Your task to perform on an android device: toggle notification dots Image 0: 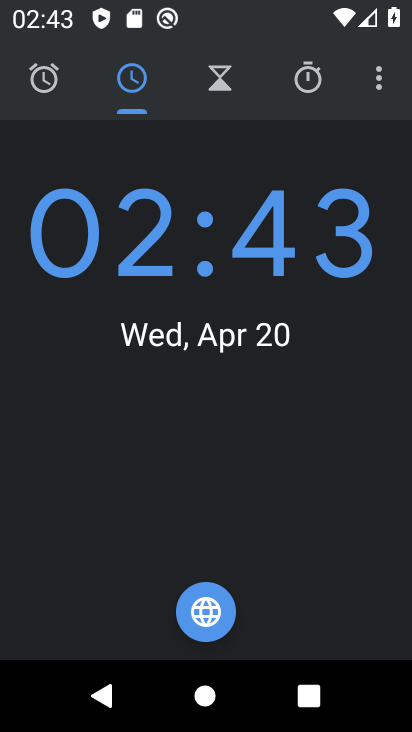
Step 0: press home button
Your task to perform on an android device: toggle notification dots Image 1: 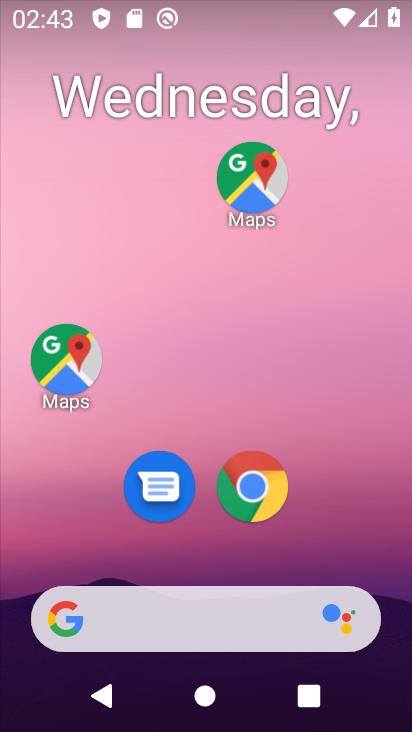
Step 1: drag from (205, 562) to (300, 1)
Your task to perform on an android device: toggle notification dots Image 2: 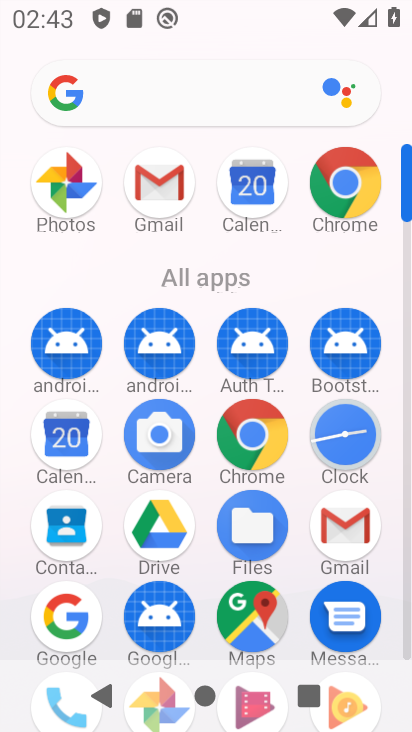
Step 2: drag from (206, 572) to (175, 169)
Your task to perform on an android device: toggle notification dots Image 3: 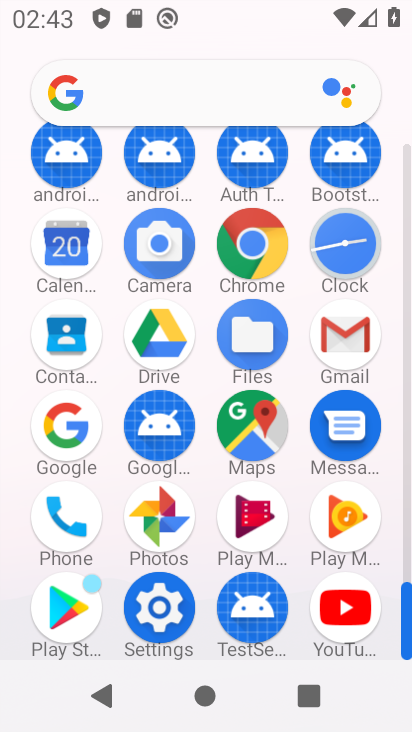
Step 3: click (166, 630)
Your task to perform on an android device: toggle notification dots Image 4: 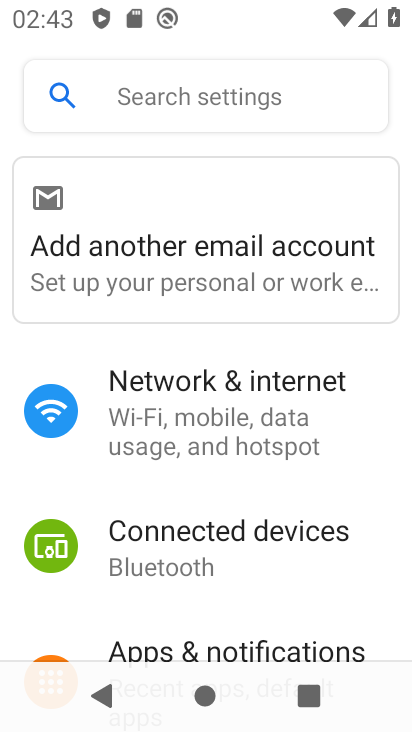
Step 4: click (208, 640)
Your task to perform on an android device: toggle notification dots Image 5: 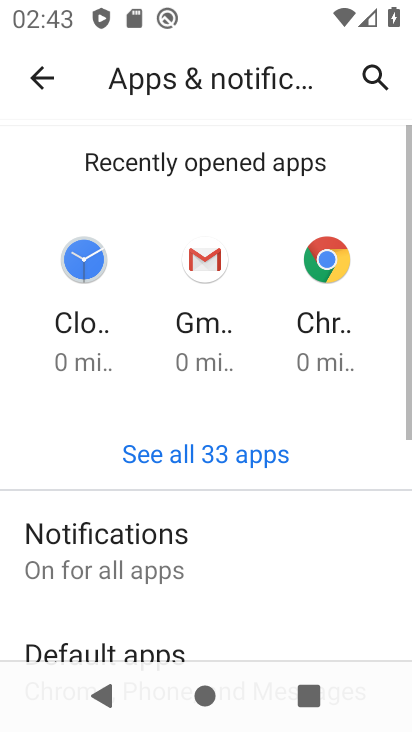
Step 5: click (201, 529)
Your task to perform on an android device: toggle notification dots Image 6: 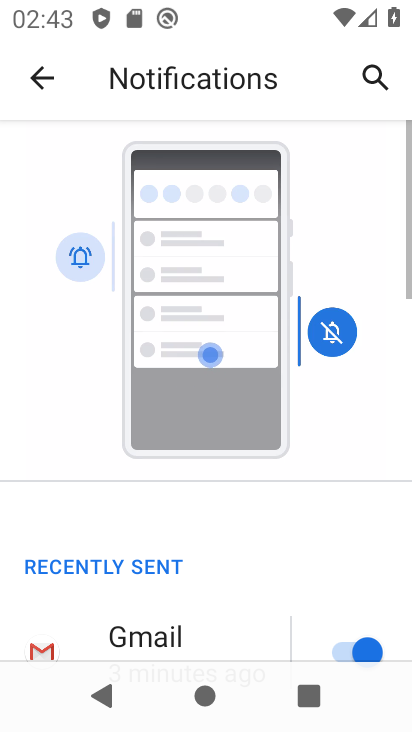
Step 6: drag from (204, 530) to (194, 51)
Your task to perform on an android device: toggle notification dots Image 7: 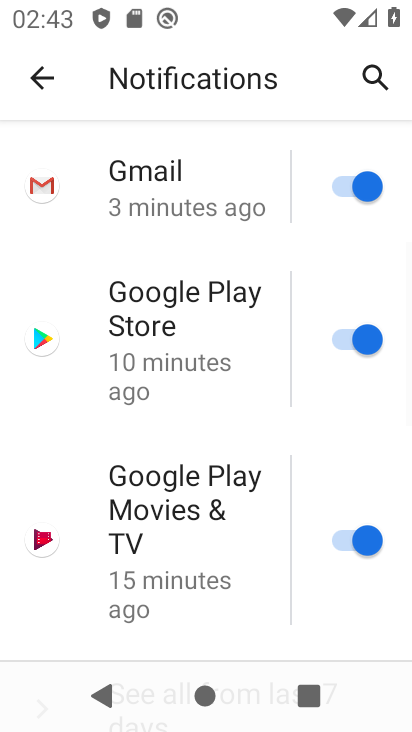
Step 7: drag from (183, 592) to (157, 77)
Your task to perform on an android device: toggle notification dots Image 8: 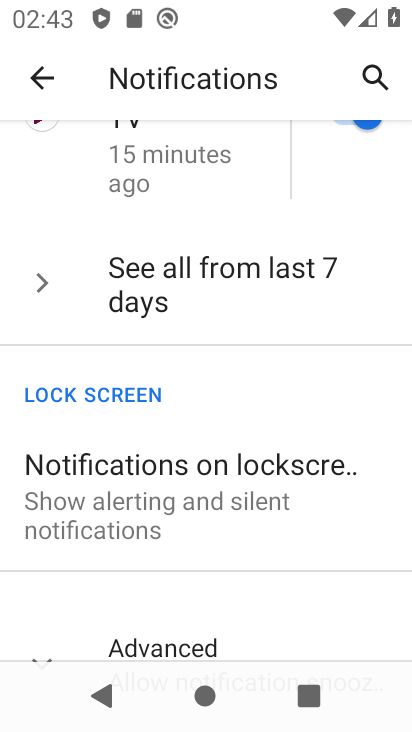
Step 8: click (184, 655)
Your task to perform on an android device: toggle notification dots Image 9: 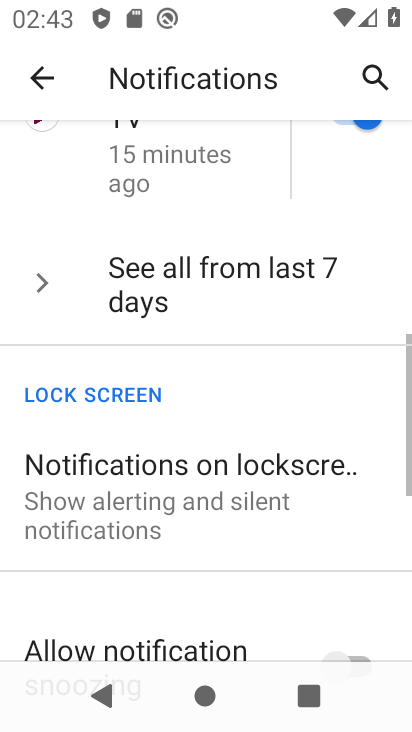
Step 9: drag from (223, 601) to (209, 10)
Your task to perform on an android device: toggle notification dots Image 10: 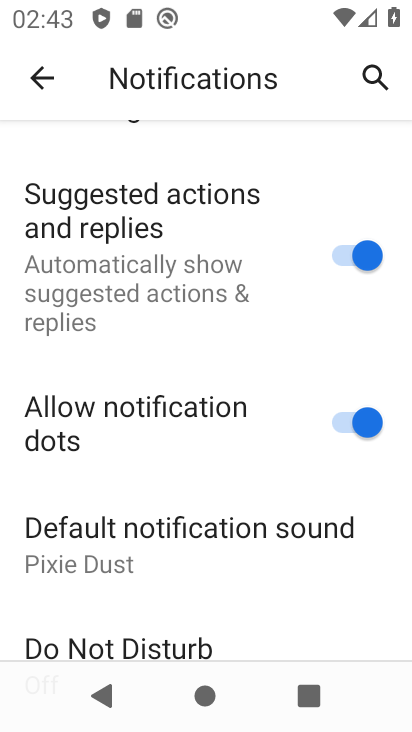
Step 10: click (353, 433)
Your task to perform on an android device: toggle notification dots Image 11: 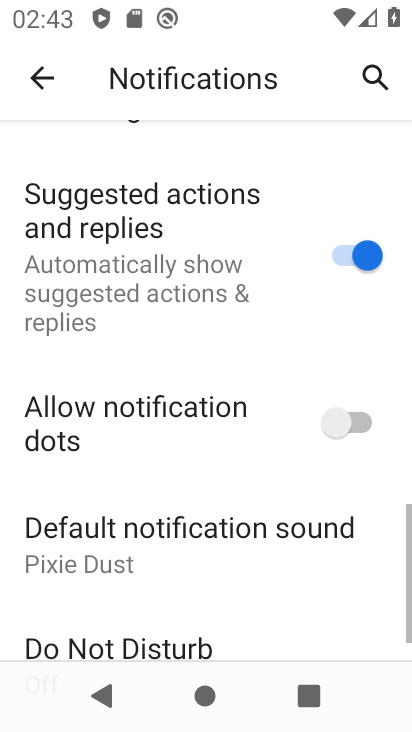
Step 11: task complete